Your task to perform on an android device: change the clock style Image 0: 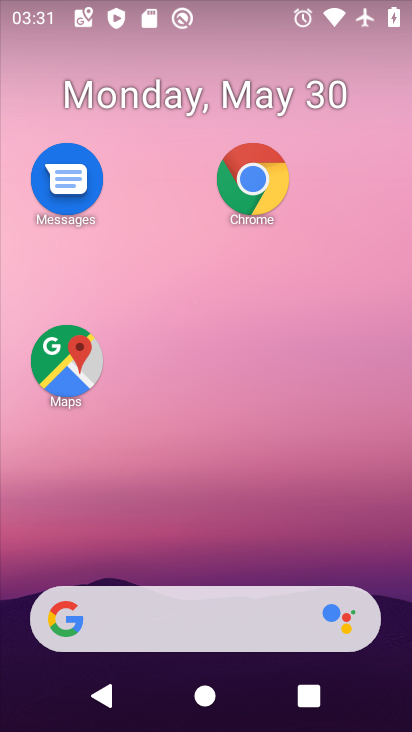
Step 0: drag from (176, 566) to (134, 26)
Your task to perform on an android device: change the clock style Image 1: 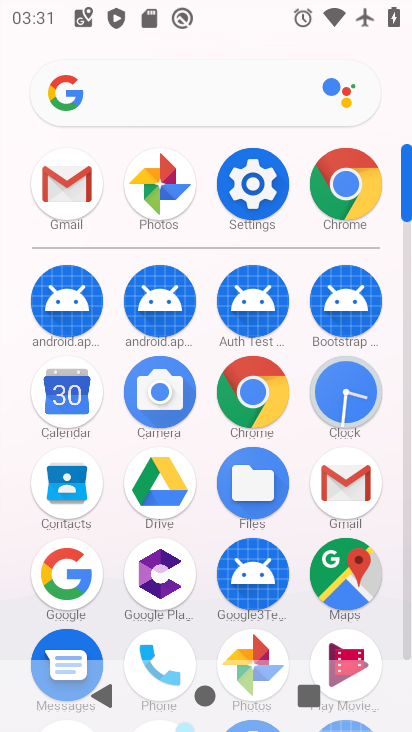
Step 1: click (329, 401)
Your task to perform on an android device: change the clock style Image 2: 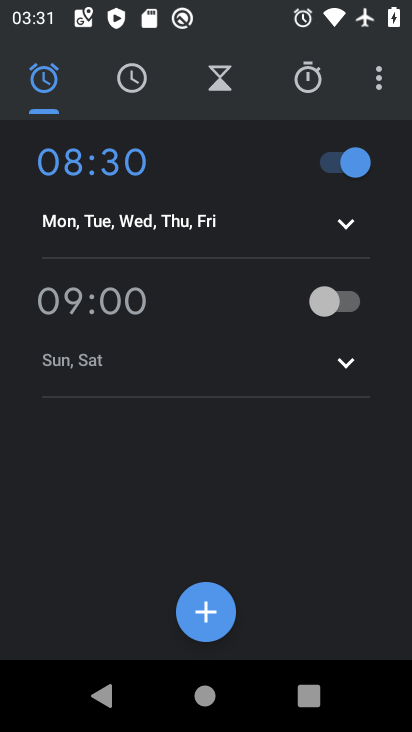
Step 2: click (378, 83)
Your task to perform on an android device: change the clock style Image 3: 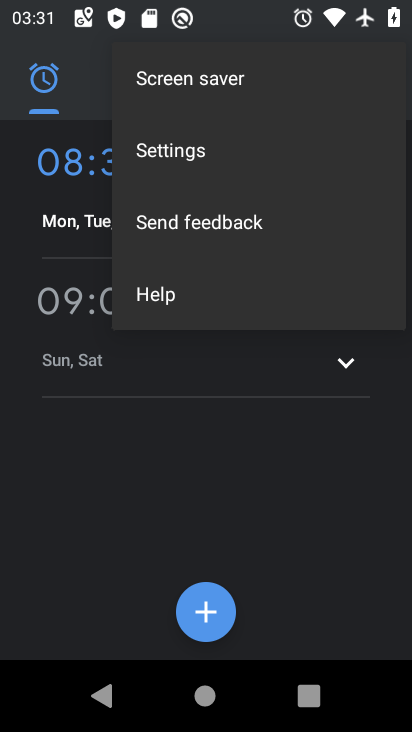
Step 3: click (143, 169)
Your task to perform on an android device: change the clock style Image 4: 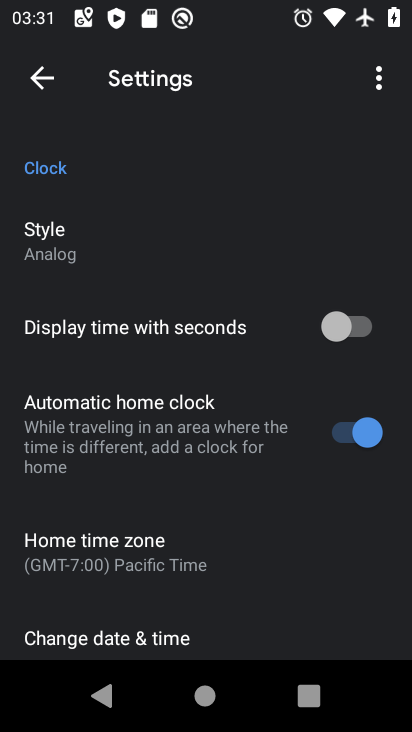
Step 4: click (85, 249)
Your task to perform on an android device: change the clock style Image 5: 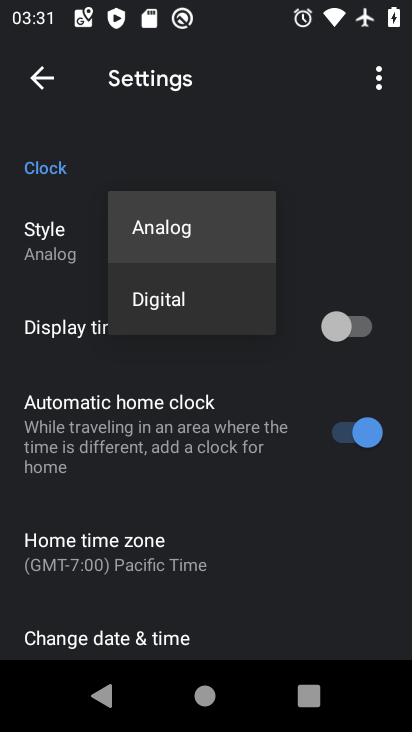
Step 5: click (148, 321)
Your task to perform on an android device: change the clock style Image 6: 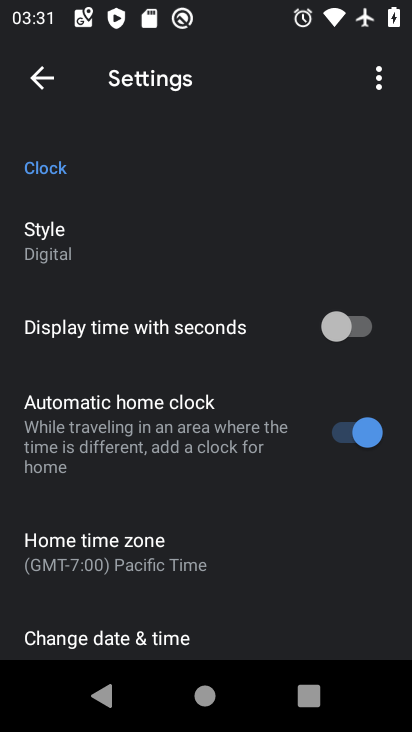
Step 6: task complete